Your task to perform on an android device: turn off picture-in-picture Image 0: 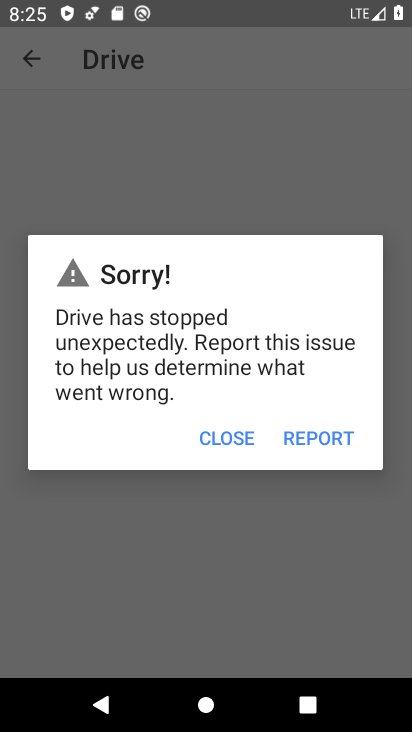
Step 0: press back button
Your task to perform on an android device: turn off picture-in-picture Image 1: 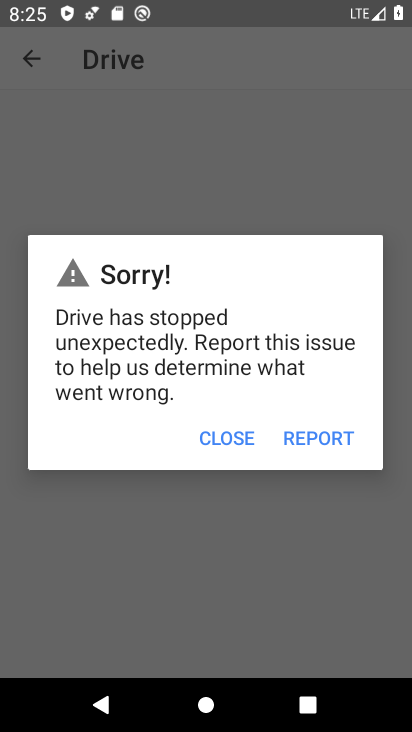
Step 1: press home button
Your task to perform on an android device: turn off picture-in-picture Image 2: 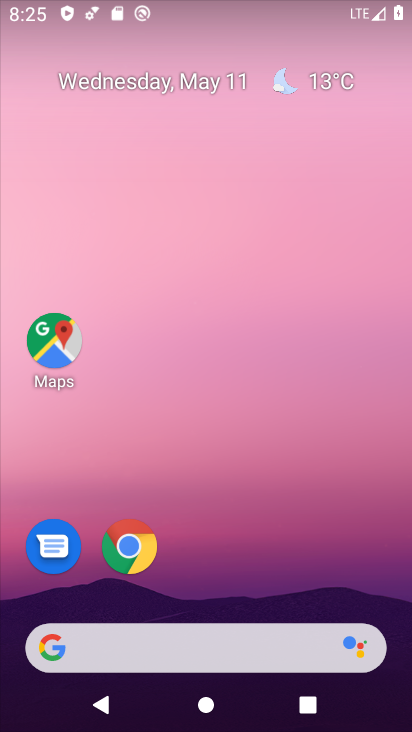
Step 2: drag from (189, 564) to (262, 31)
Your task to perform on an android device: turn off picture-in-picture Image 3: 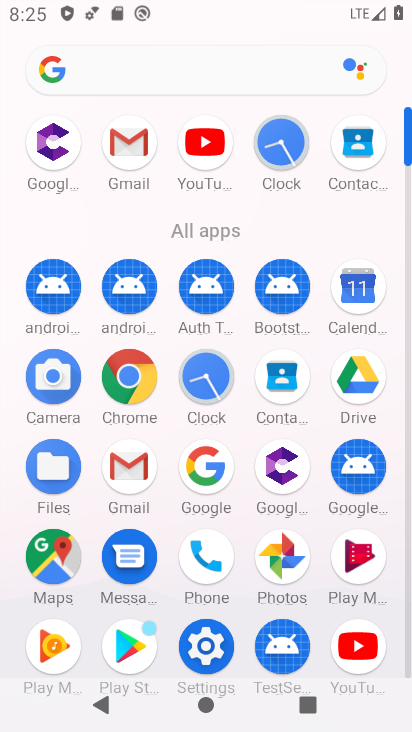
Step 3: click (209, 648)
Your task to perform on an android device: turn off picture-in-picture Image 4: 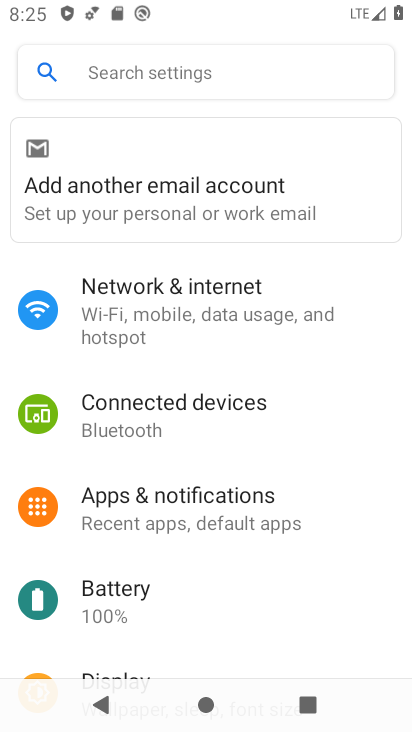
Step 4: drag from (195, 633) to (268, 150)
Your task to perform on an android device: turn off picture-in-picture Image 5: 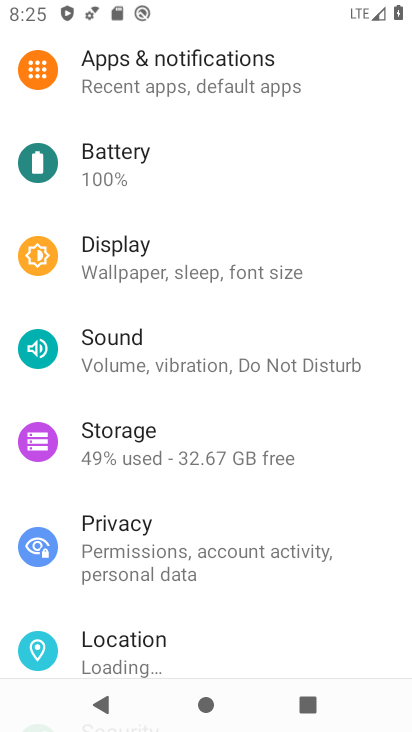
Step 5: drag from (195, 551) to (229, 144)
Your task to perform on an android device: turn off picture-in-picture Image 6: 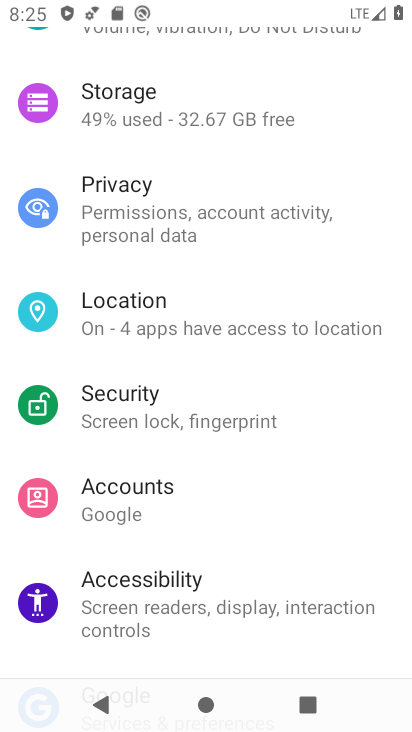
Step 6: drag from (229, 144) to (164, 662)
Your task to perform on an android device: turn off picture-in-picture Image 7: 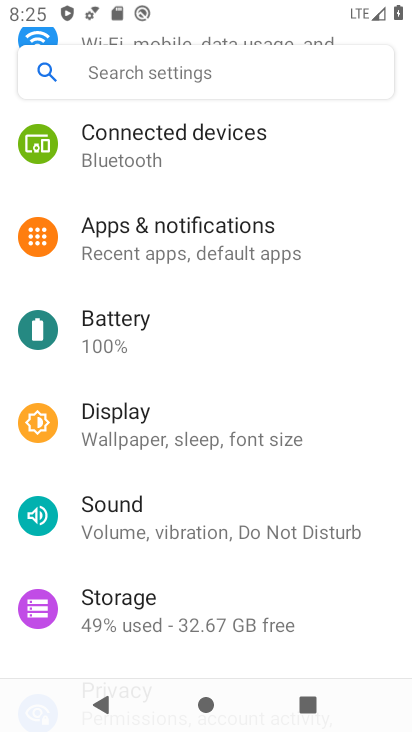
Step 7: drag from (228, 274) to (228, 609)
Your task to perform on an android device: turn off picture-in-picture Image 8: 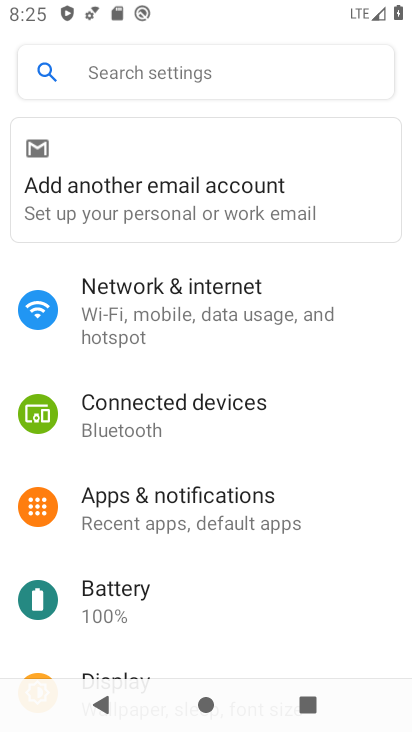
Step 8: click (188, 488)
Your task to perform on an android device: turn off picture-in-picture Image 9: 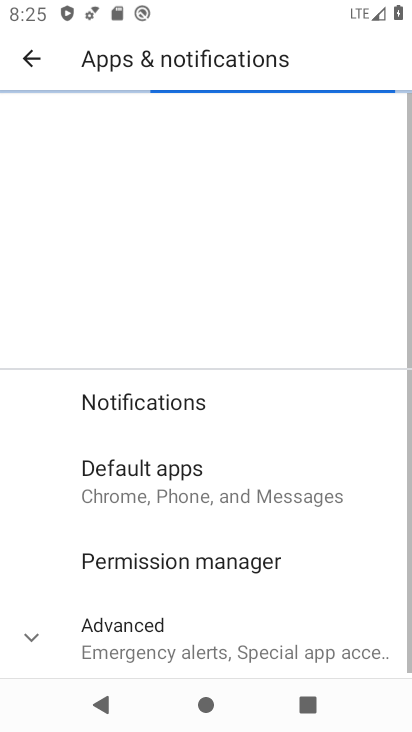
Step 9: drag from (210, 570) to (268, 212)
Your task to perform on an android device: turn off picture-in-picture Image 10: 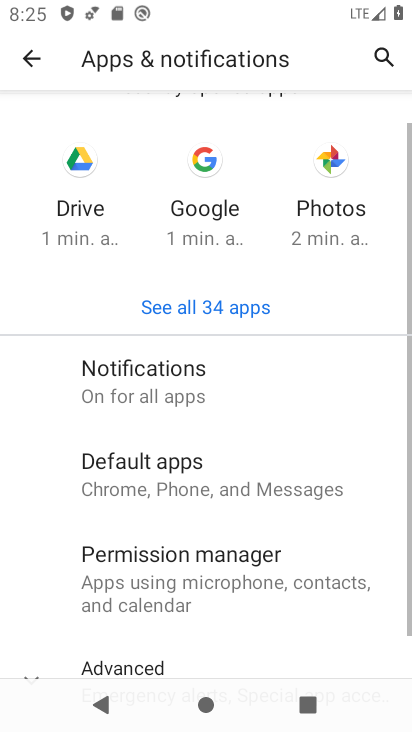
Step 10: drag from (211, 575) to (287, 47)
Your task to perform on an android device: turn off picture-in-picture Image 11: 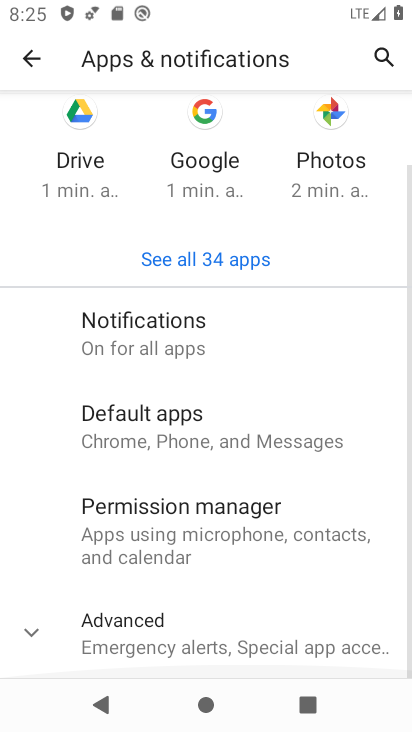
Step 11: click (131, 644)
Your task to perform on an android device: turn off picture-in-picture Image 12: 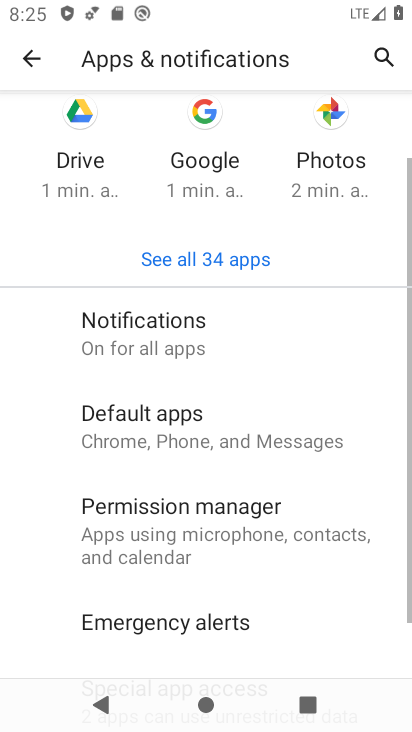
Step 12: drag from (137, 643) to (214, 182)
Your task to perform on an android device: turn off picture-in-picture Image 13: 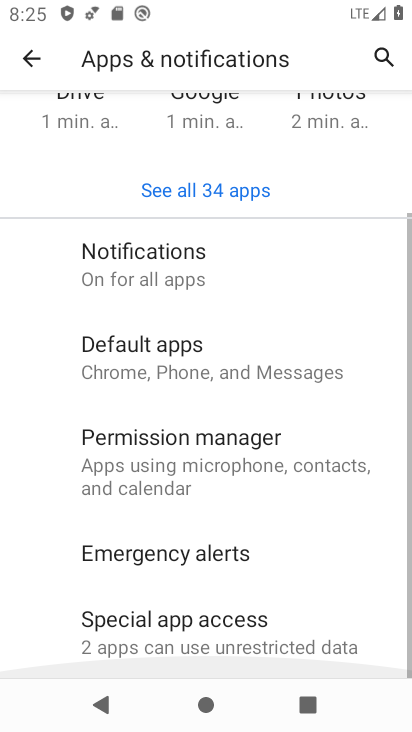
Step 13: click (149, 603)
Your task to perform on an android device: turn off picture-in-picture Image 14: 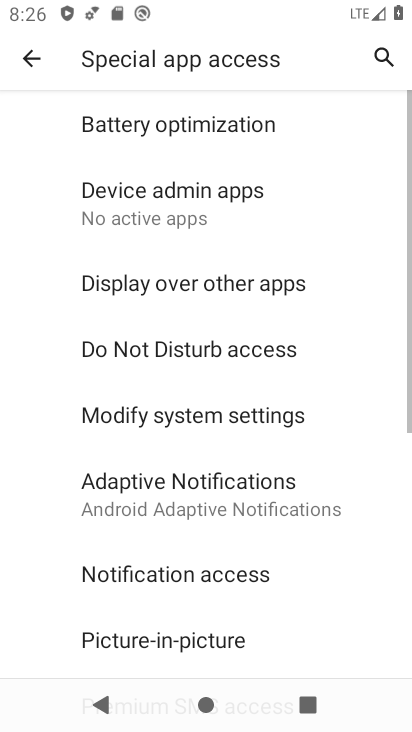
Step 14: click (152, 645)
Your task to perform on an android device: turn off picture-in-picture Image 15: 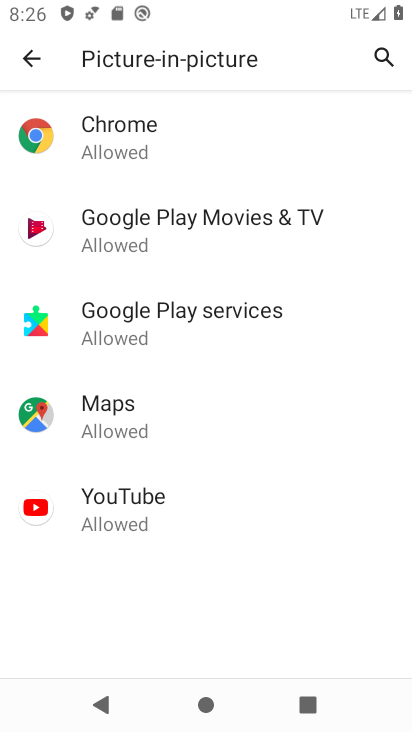
Step 15: click (128, 95)
Your task to perform on an android device: turn off picture-in-picture Image 16: 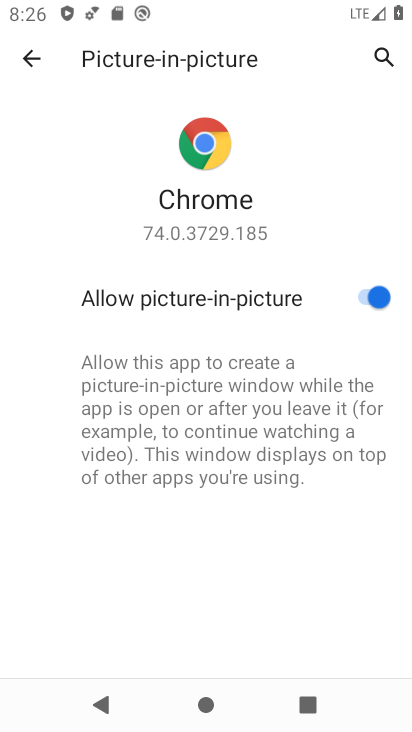
Step 16: click (371, 294)
Your task to perform on an android device: turn off picture-in-picture Image 17: 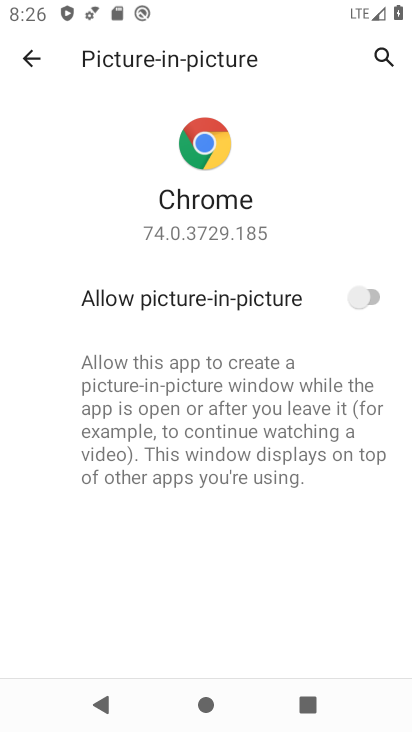
Step 17: task complete